Your task to perform on an android device: delete a single message in the gmail app Image 0: 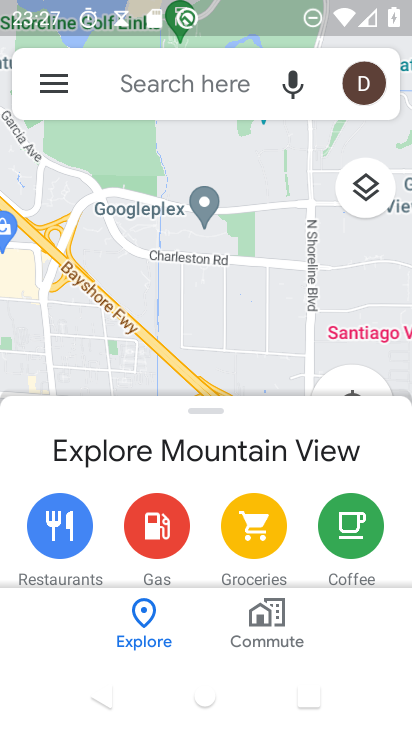
Step 0: press home button
Your task to perform on an android device: delete a single message in the gmail app Image 1: 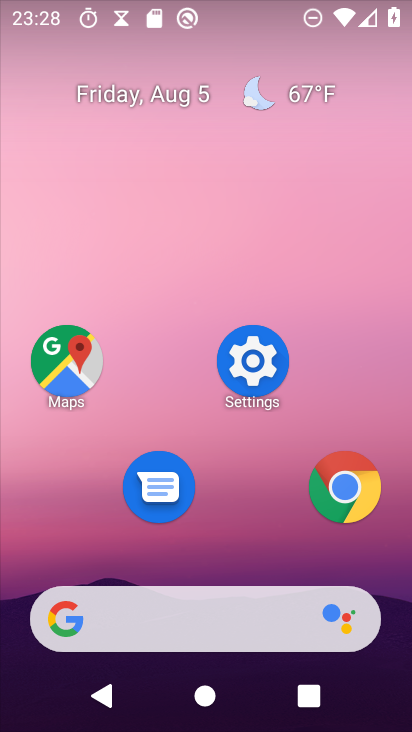
Step 1: drag from (236, 620) to (270, 3)
Your task to perform on an android device: delete a single message in the gmail app Image 2: 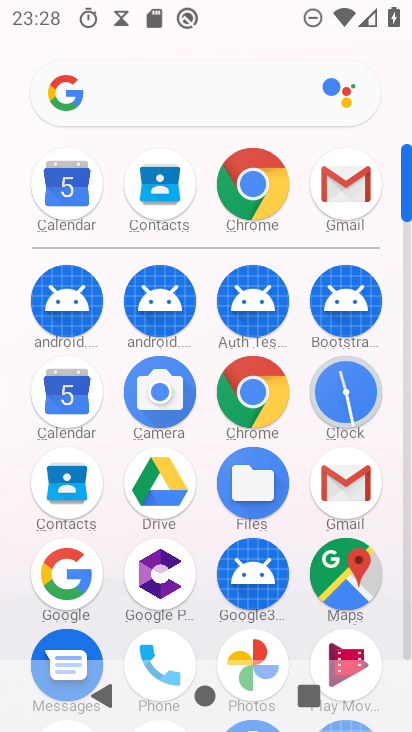
Step 2: click (349, 484)
Your task to perform on an android device: delete a single message in the gmail app Image 3: 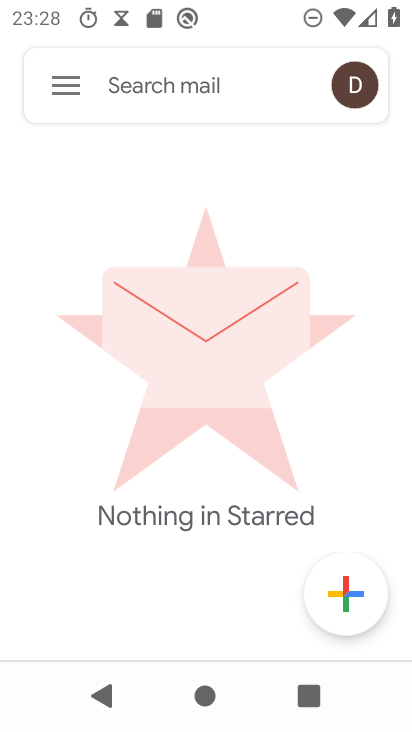
Step 3: click (68, 82)
Your task to perform on an android device: delete a single message in the gmail app Image 4: 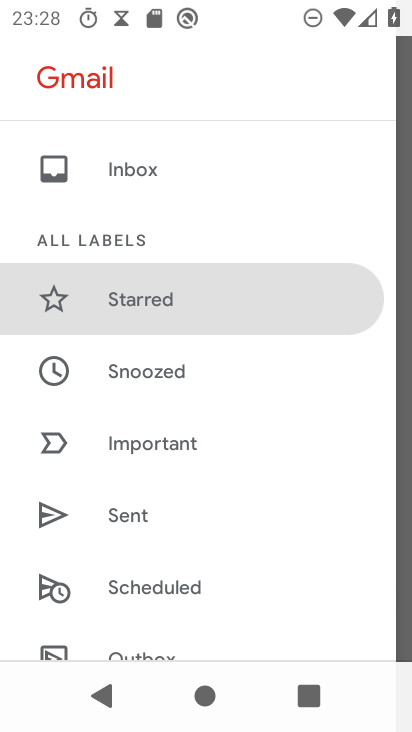
Step 4: click (133, 166)
Your task to perform on an android device: delete a single message in the gmail app Image 5: 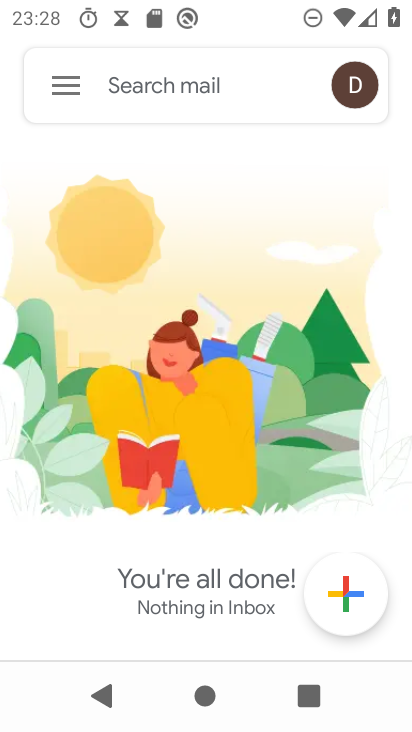
Step 5: task complete